Your task to perform on an android device: Open display settings Image 0: 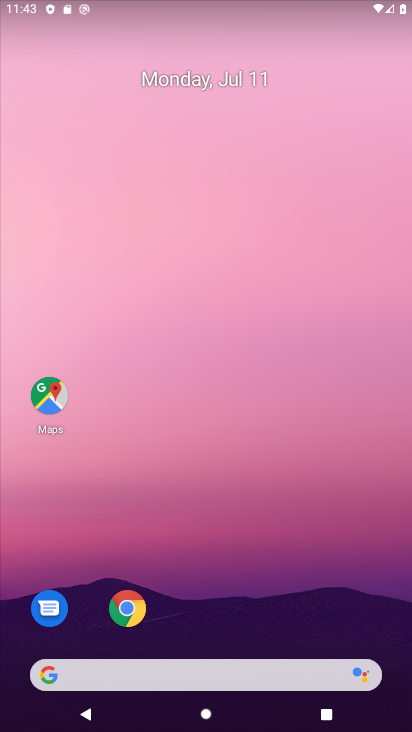
Step 0: drag from (305, 471) to (317, 141)
Your task to perform on an android device: Open display settings Image 1: 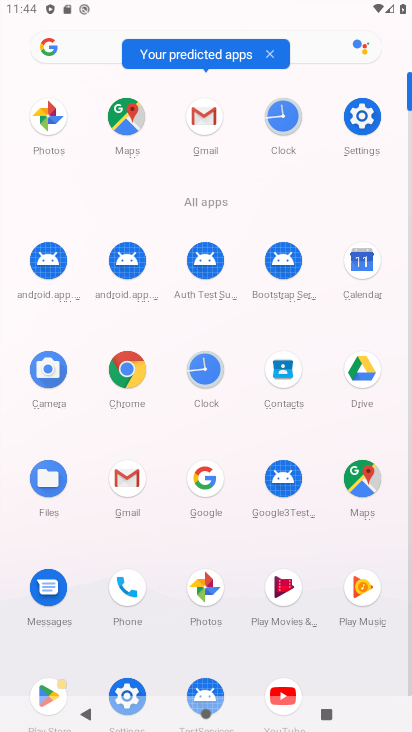
Step 1: click (363, 123)
Your task to perform on an android device: Open display settings Image 2: 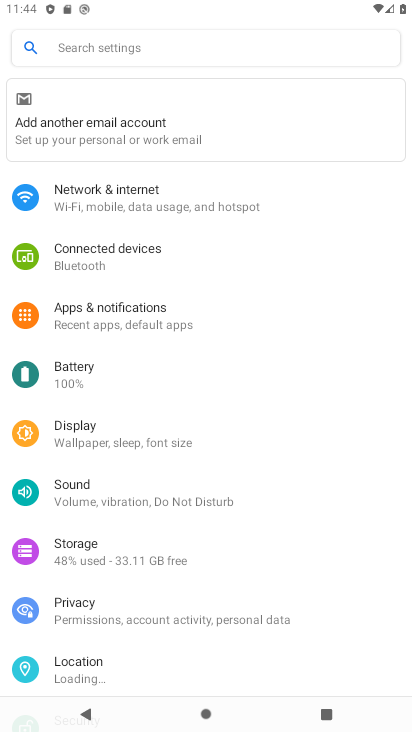
Step 2: click (65, 430)
Your task to perform on an android device: Open display settings Image 3: 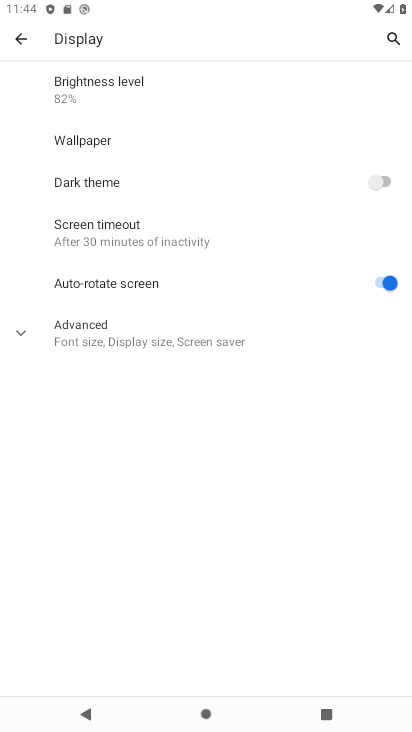
Step 3: click (99, 332)
Your task to perform on an android device: Open display settings Image 4: 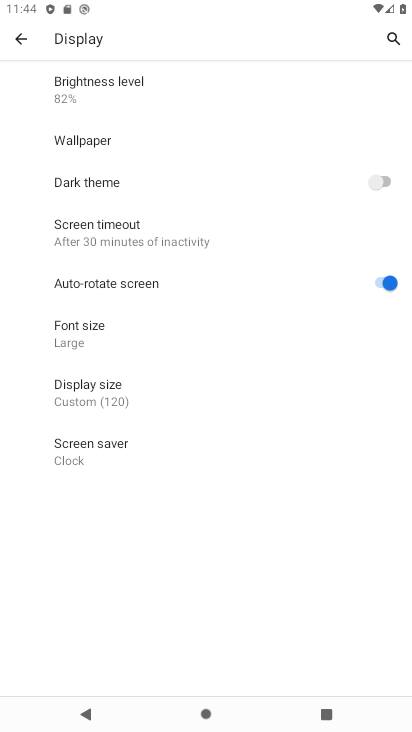
Step 4: task complete